Your task to perform on an android device: Go to battery settings Image 0: 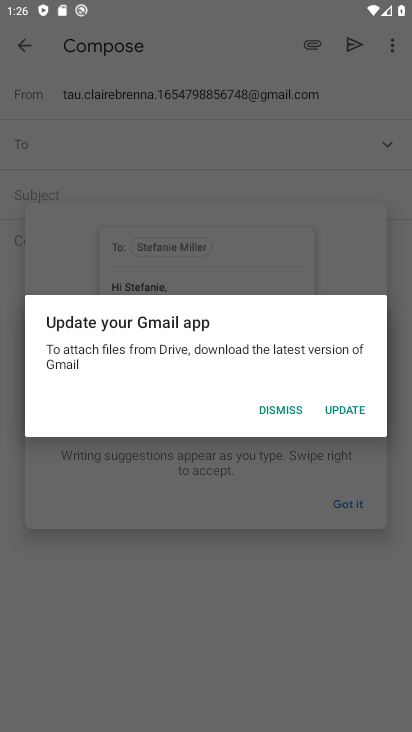
Step 0: press home button
Your task to perform on an android device: Go to battery settings Image 1: 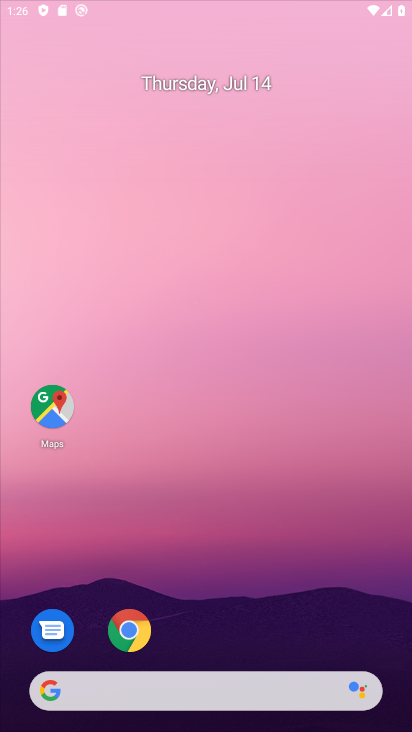
Step 1: drag from (155, 692) to (218, 251)
Your task to perform on an android device: Go to battery settings Image 2: 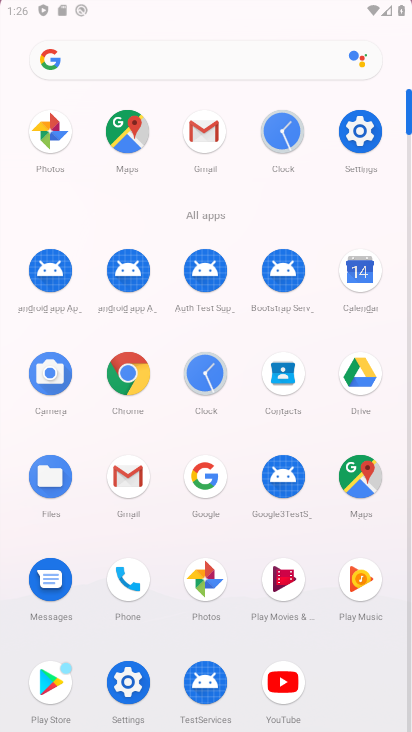
Step 2: drag from (179, 652) to (256, 160)
Your task to perform on an android device: Go to battery settings Image 3: 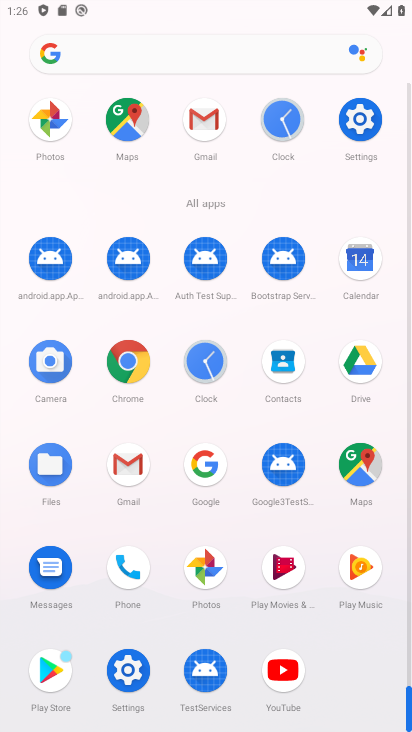
Step 3: click (358, 111)
Your task to perform on an android device: Go to battery settings Image 4: 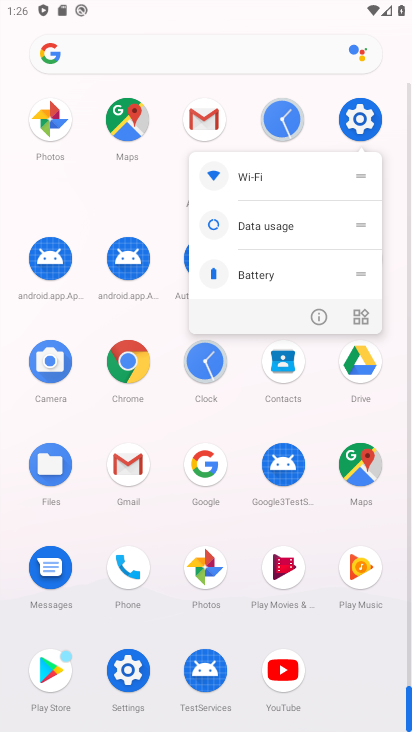
Step 4: click (314, 316)
Your task to perform on an android device: Go to battery settings Image 5: 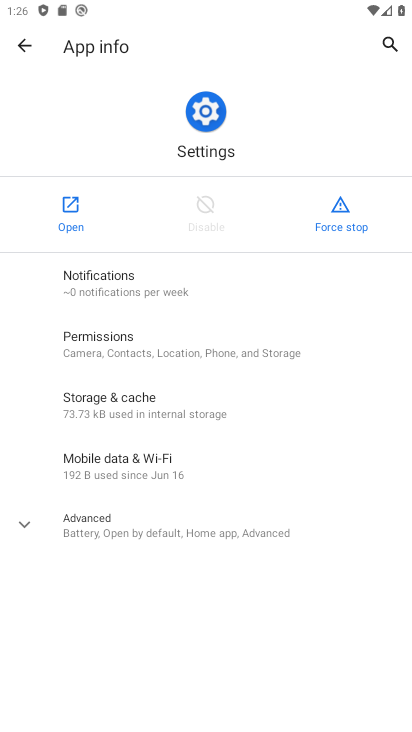
Step 5: click (69, 207)
Your task to perform on an android device: Go to battery settings Image 6: 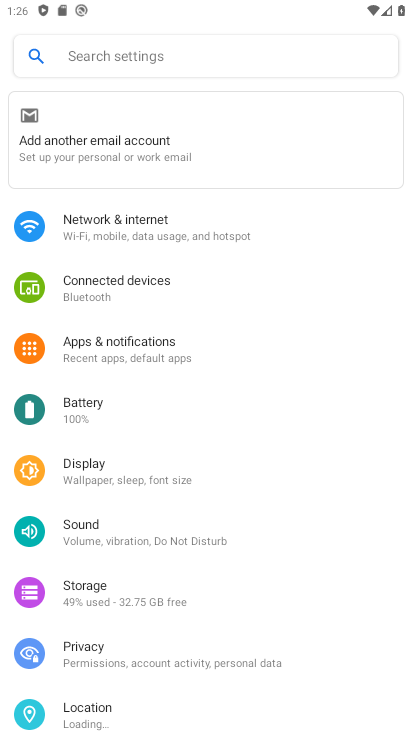
Step 6: click (139, 414)
Your task to perform on an android device: Go to battery settings Image 7: 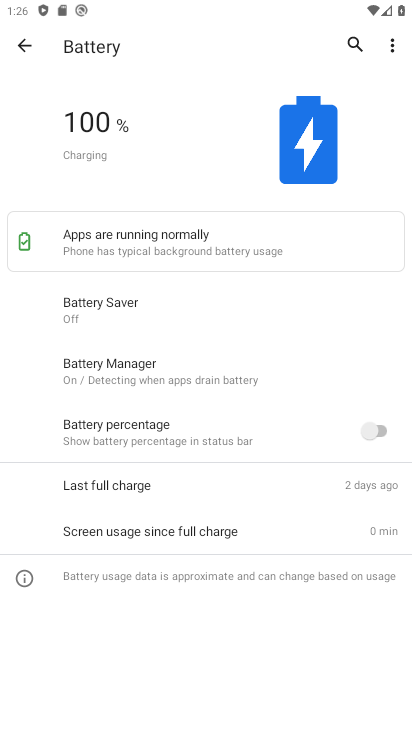
Step 7: task complete